Your task to perform on an android device: Open Wikipedia Image 0: 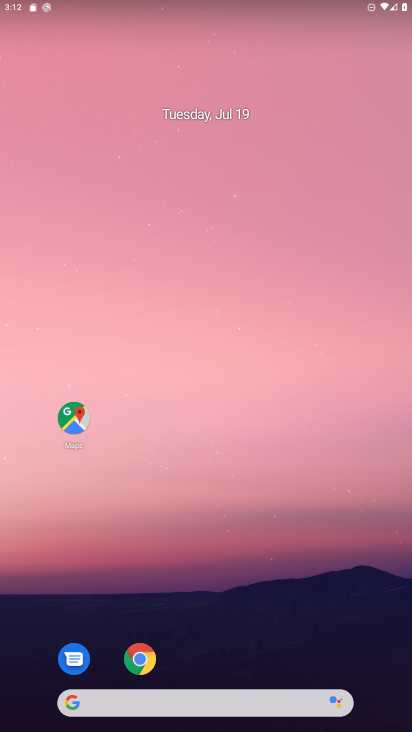
Step 0: click (144, 653)
Your task to perform on an android device: Open Wikipedia Image 1: 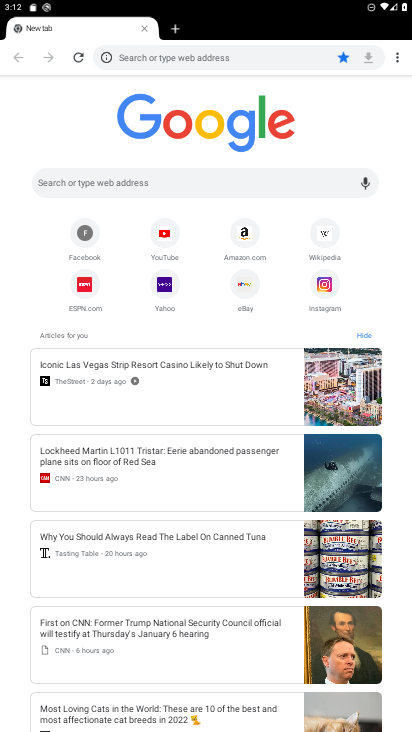
Step 1: click (319, 234)
Your task to perform on an android device: Open Wikipedia Image 2: 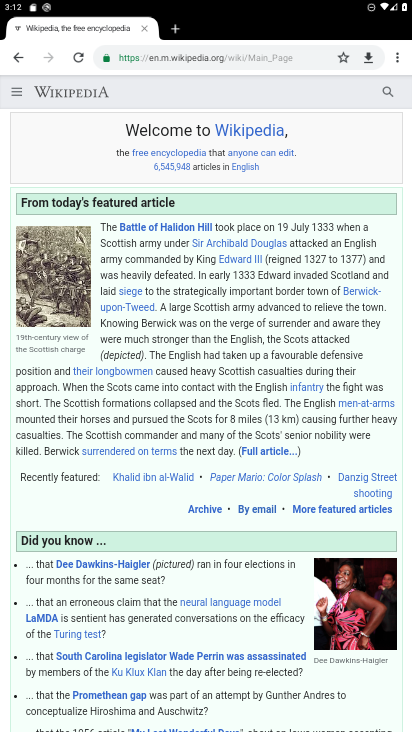
Step 2: task complete